Your task to perform on an android device: change the clock display to analog Image 0: 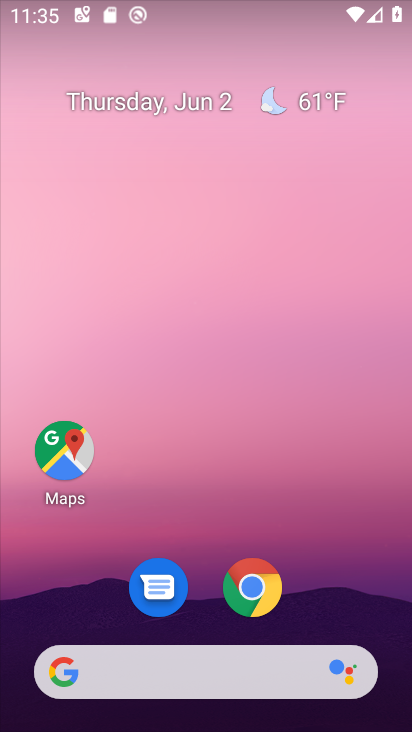
Step 0: drag from (225, 499) to (262, 0)
Your task to perform on an android device: change the clock display to analog Image 1: 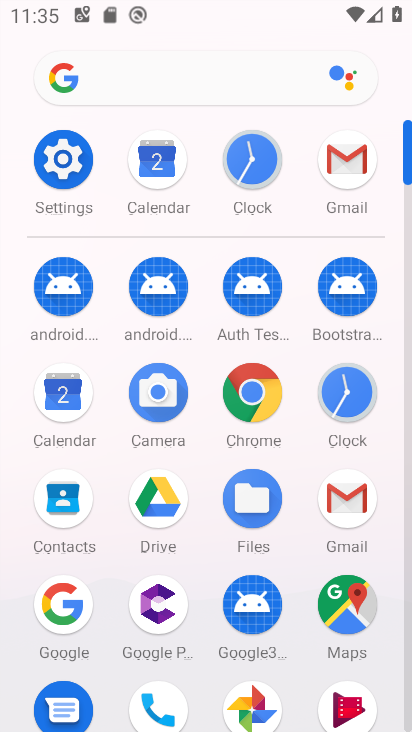
Step 1: click (252, 162)
Your task to perform on an android device: change the clock display to analog Image 2: 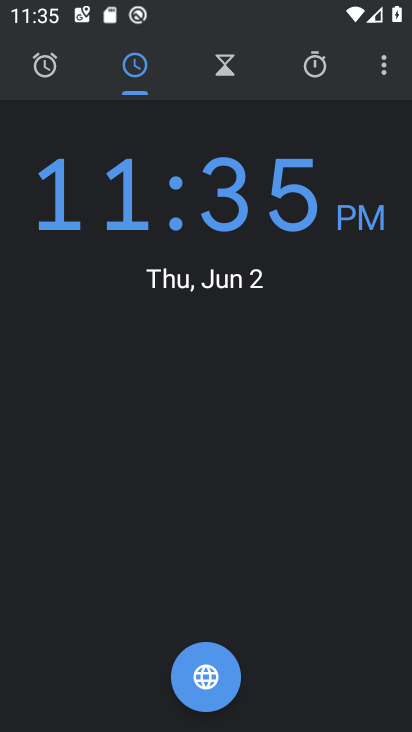
Step 2: click (379, 71)
Your task to perform on an android device: change the clock display to analog Image 3: 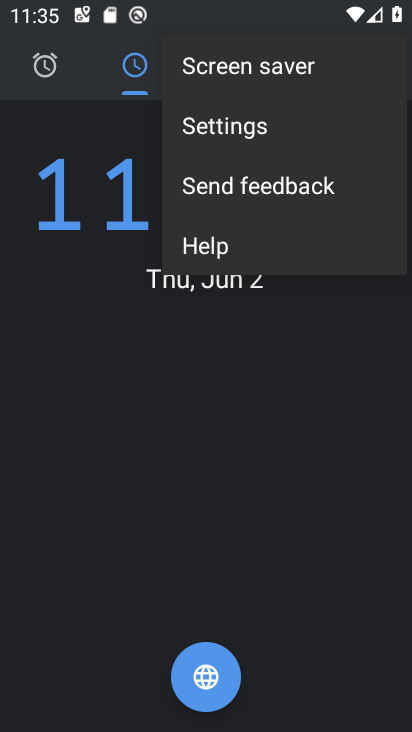
Step 3: click (324, 131)
Your task to perform on an android device: change the clock display to analog Image 4: 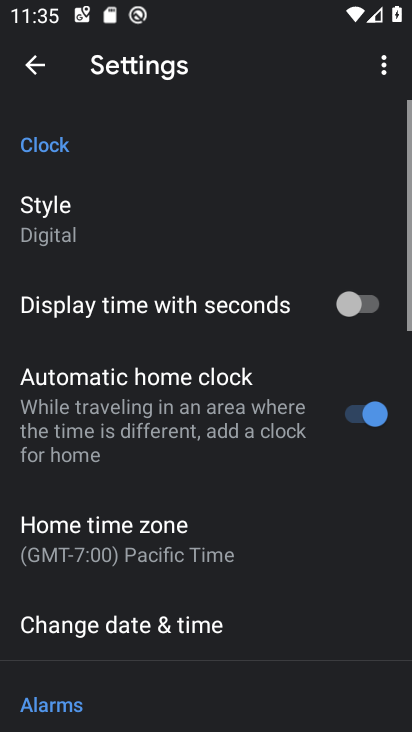
Step 4: click (134, 225)
Your task to perform on an android device: change the clock display to analog Image 5: 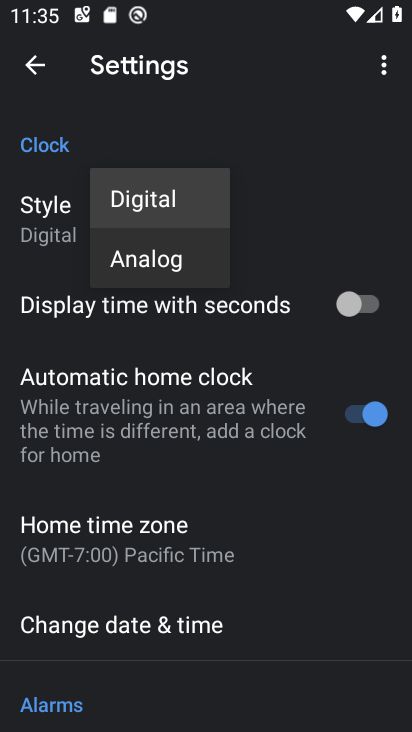
Step 5: click (126, 263)
Your task to perform on an android device: change the clock display to analog Image 6: 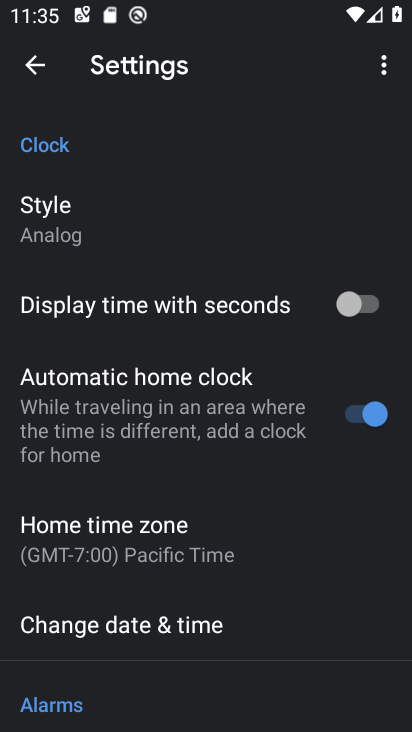
Step 6: task complete